Your task to perform on an android device: open app "Microsoft Outlook" Image 0: 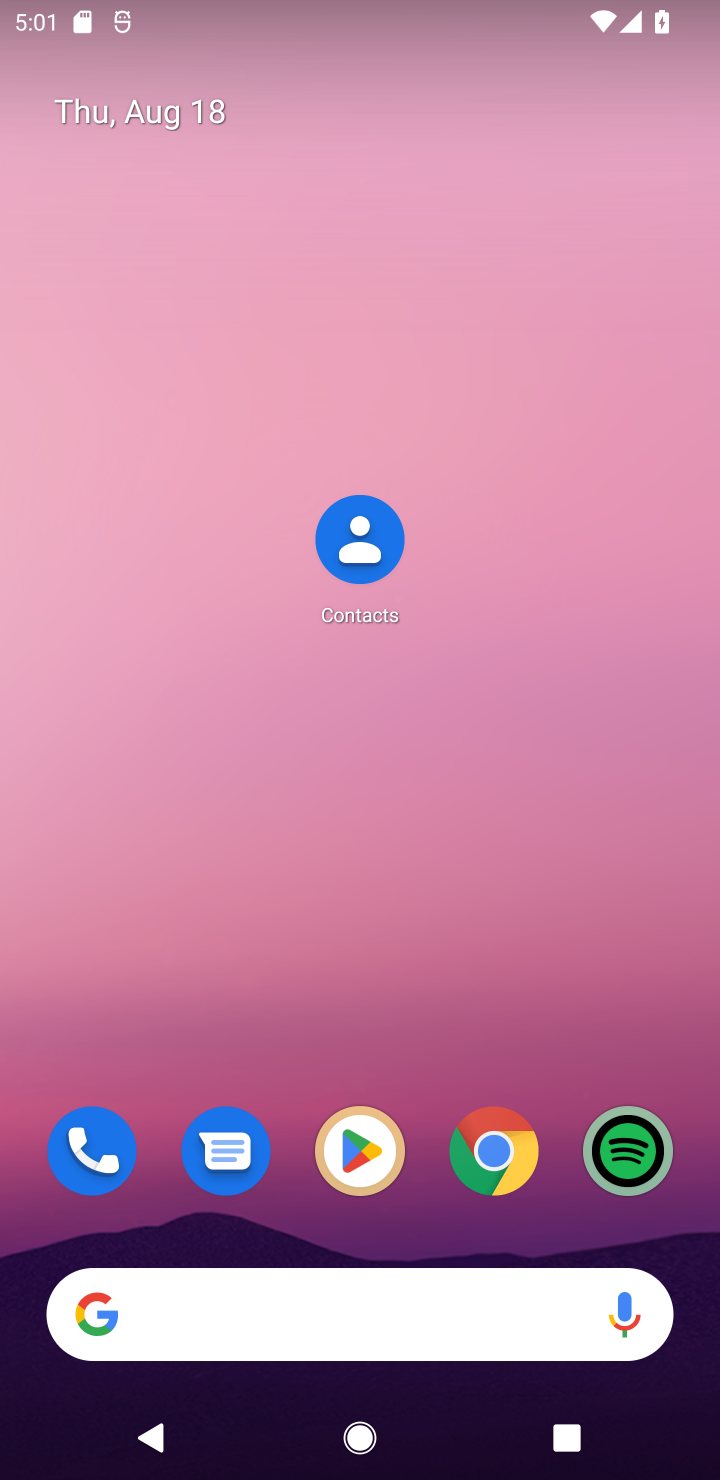
Step 0: click (386, 1158)
Your task to perform on an android device: open app "Microsoft Outlook" Image 1: 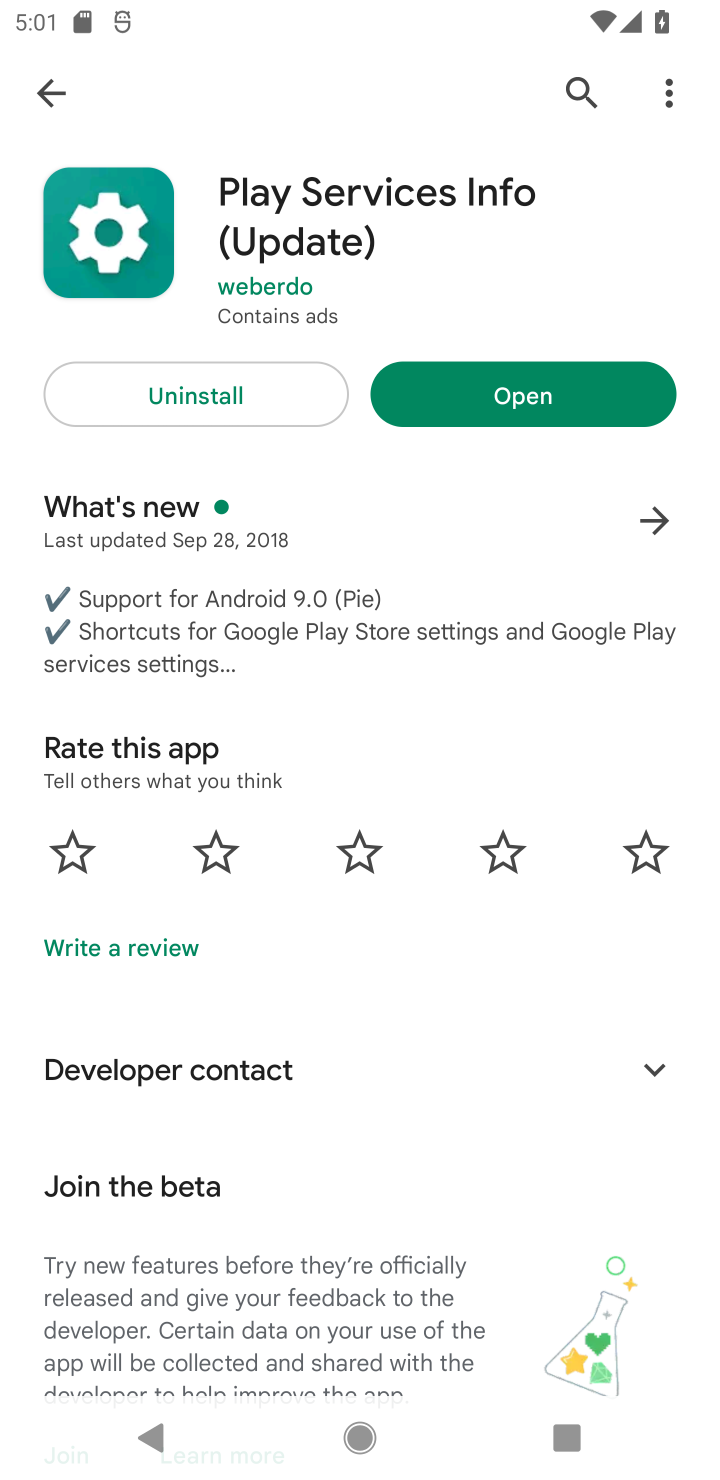
Step 1: click (543, 95)
Your task to perform on an android device: open app "Microsoft Outlook" Image 2: 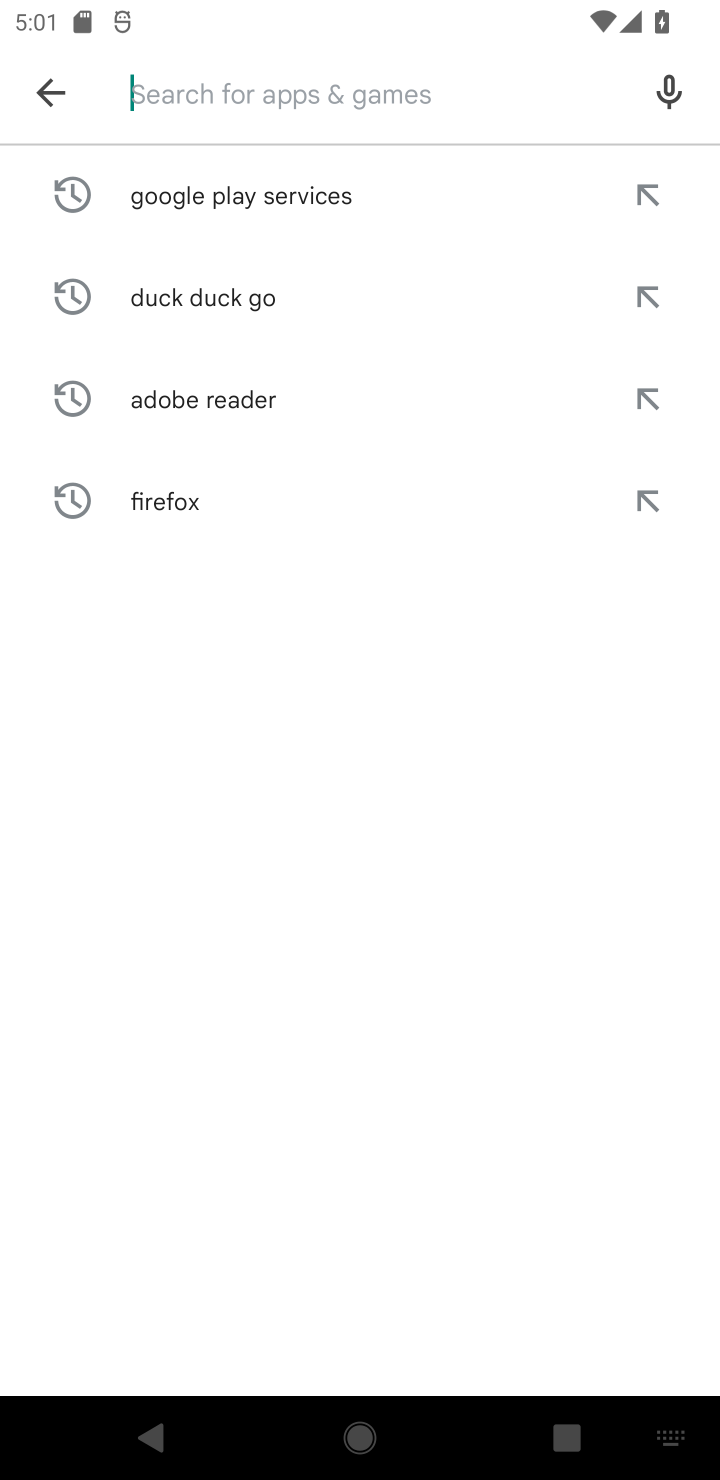
Step 2: click (662, 103)
Your task to perform on an android device: open app "Microsoft Outlook" Image 3: 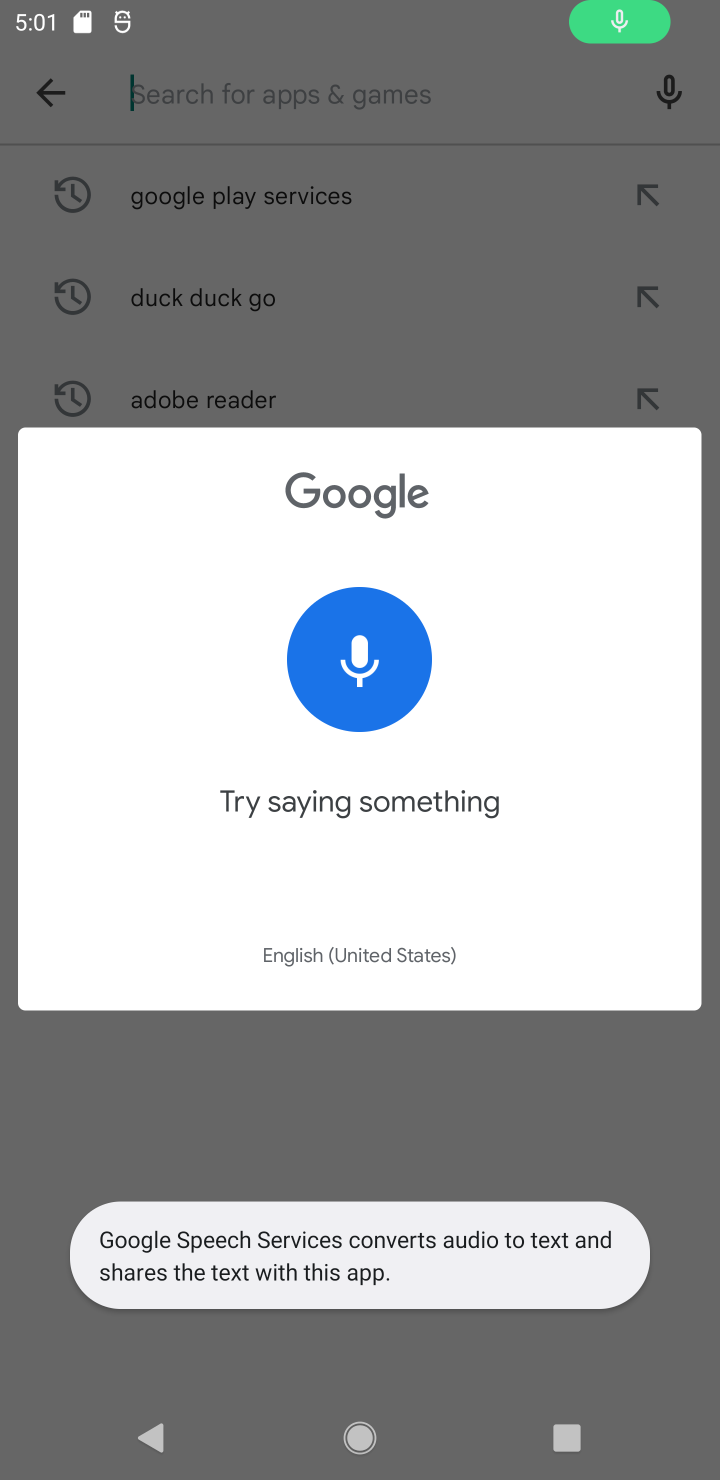
Step 3: click (347, 197)
Your task to perform on an android device: open app "Microsoft Outlook" Image 4: 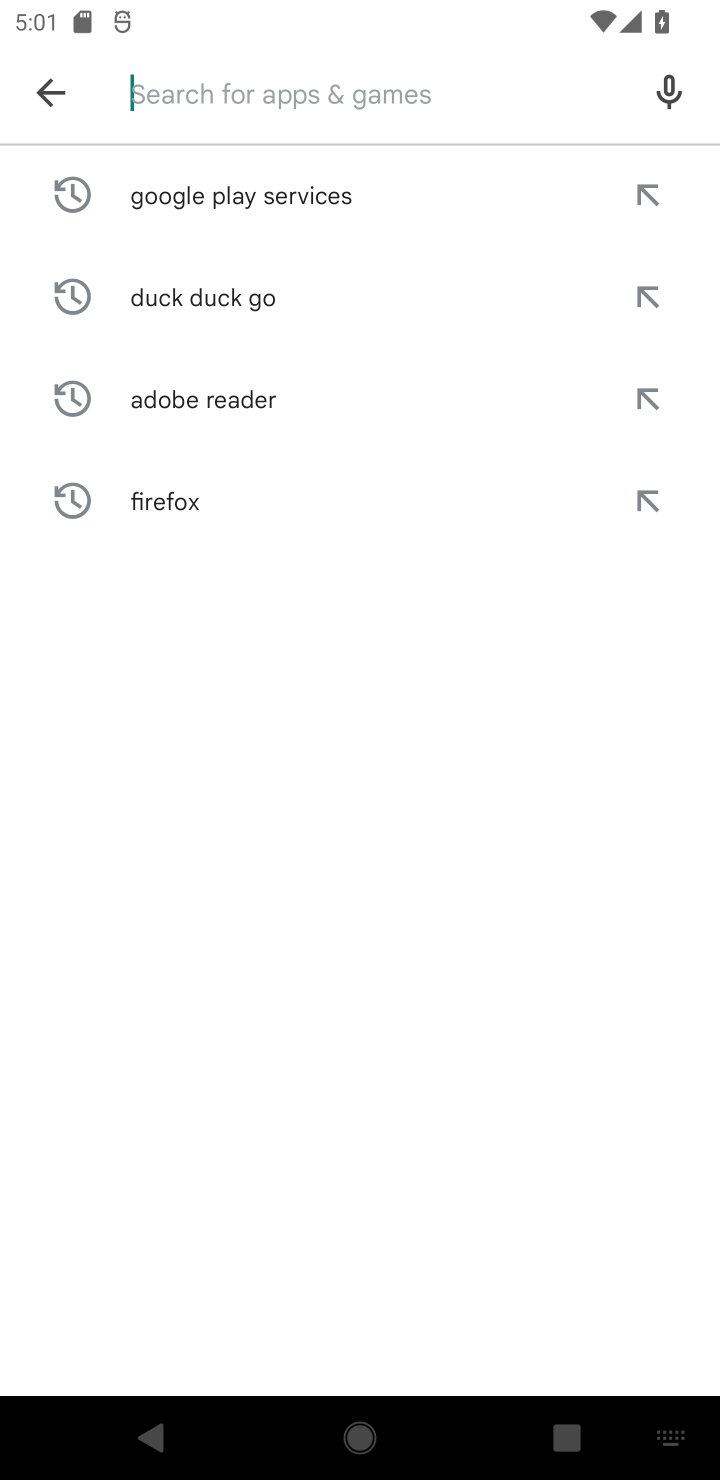
Step 4: type "microft outlook"
Your task to perform on an android device: open app "Microsoft Outlook" Image 5: 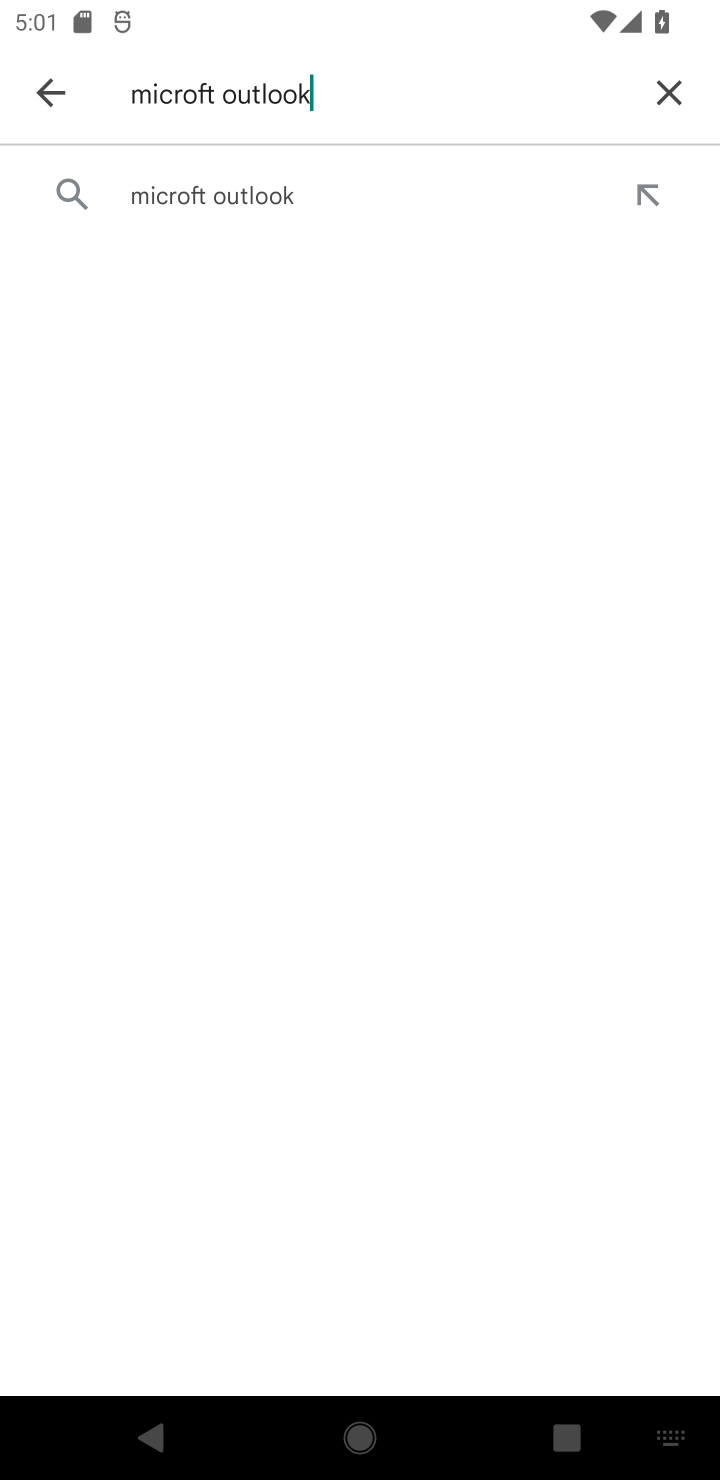
Step 5: click (340, 227)
Your task to perform on an android device: open app "Microsoft Outlook" Image 6: 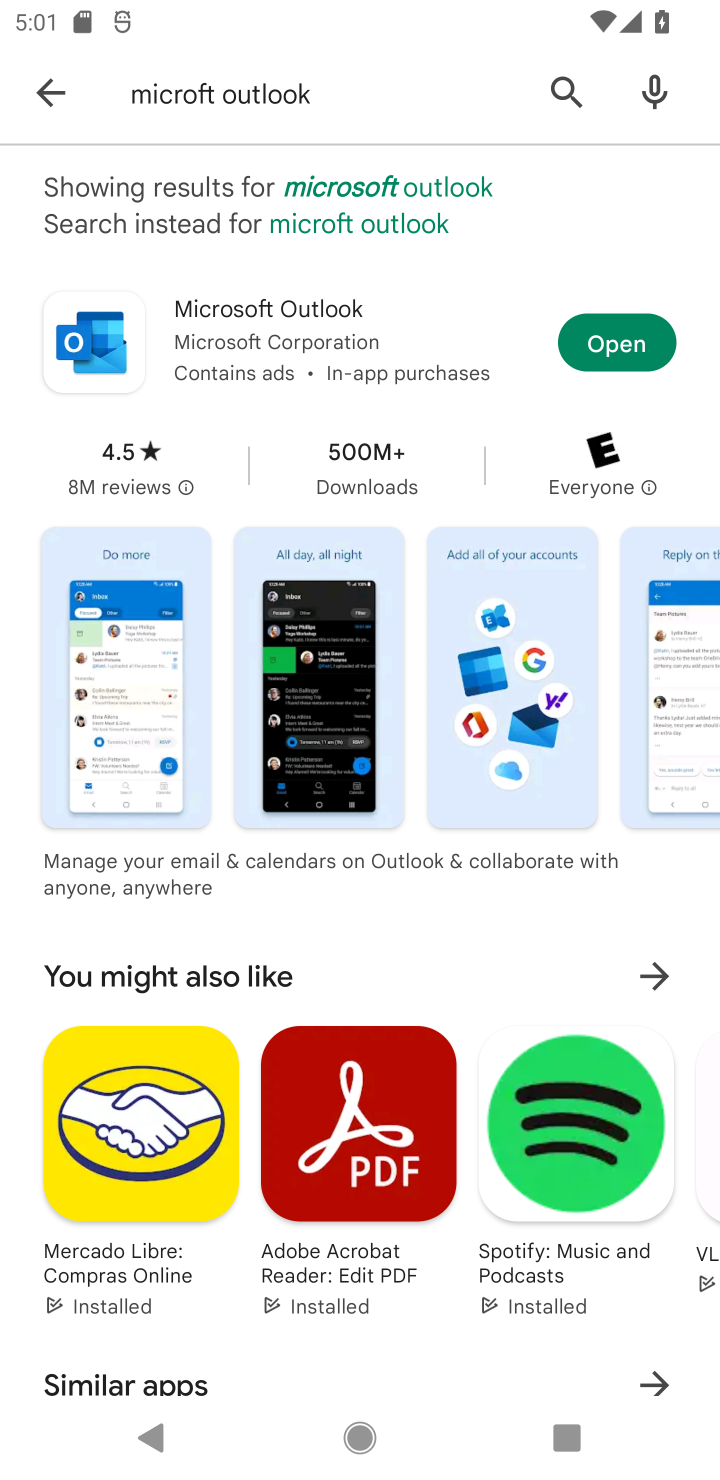
Step 6: click (635, 342)
Your task to perform on an android device: open app "Microsoft Outlook" Image 7: 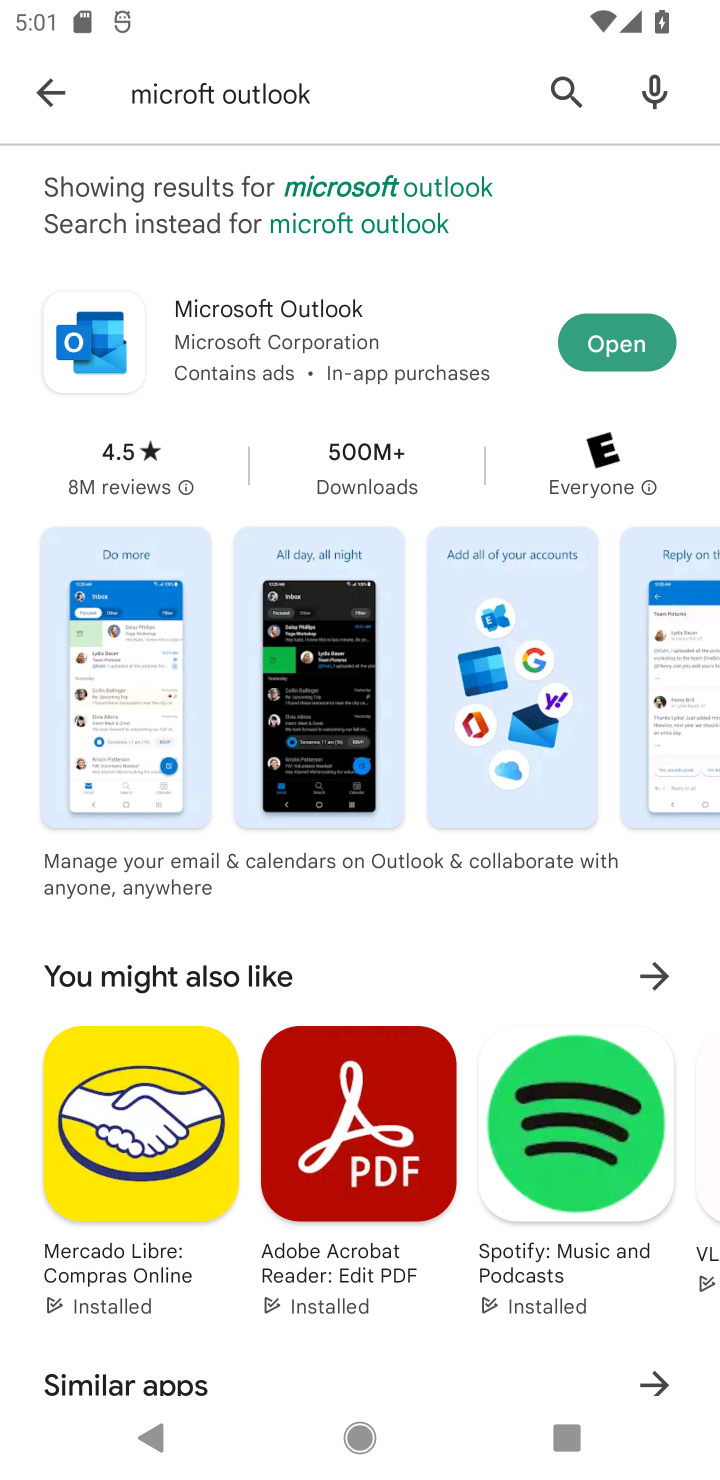
Step 7: task complete